Your task to perform on an android device: Open Google Maps Image 0: 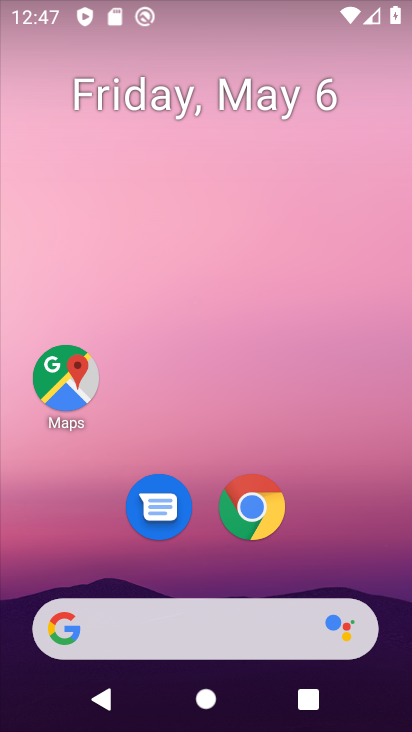
Step 0: click (91, 373)
Your task to perform on an android device: Open Google Maps Image 1: 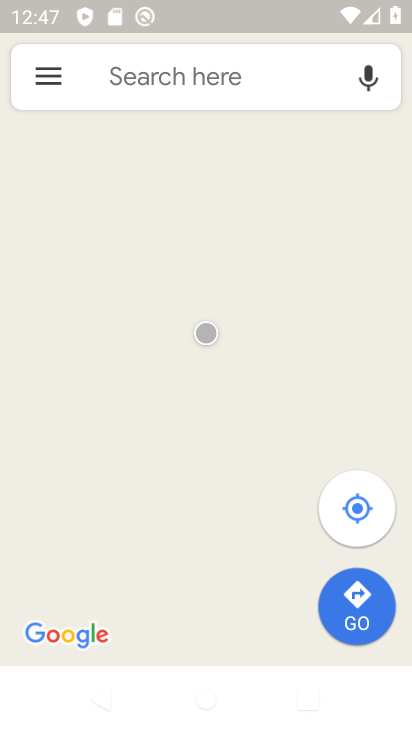
Step 1: task complete